Your task to perform on an android device: Go to Reddit.com Image 0: 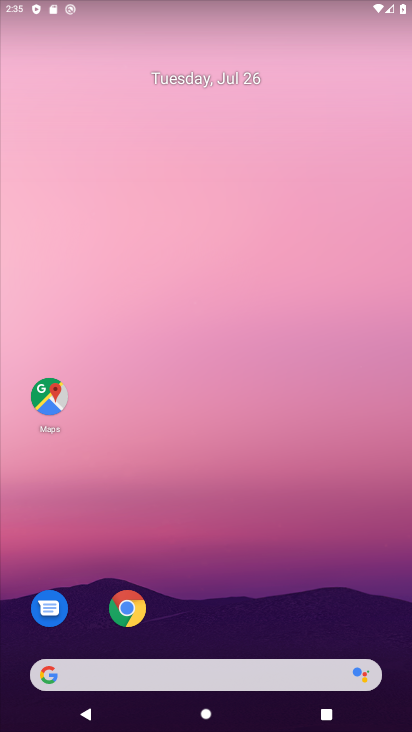
Step 0: click (137, 614)
Your task to perform on an android device: Go to Reddit.com Image 1: 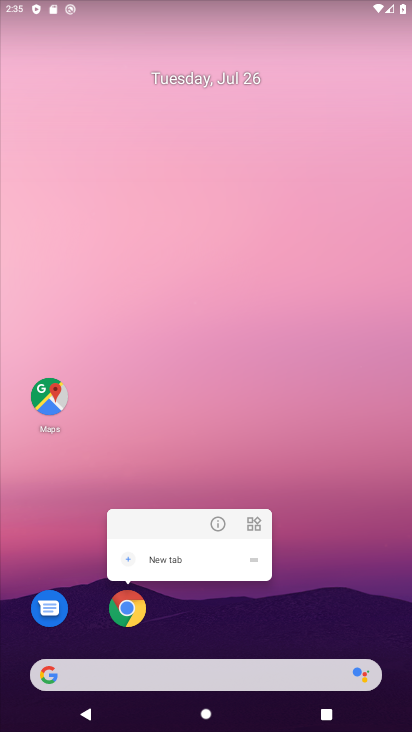
Step 1: click (130, 621)
Your task to perform on an android device: Go to Reddit.com Image 2: 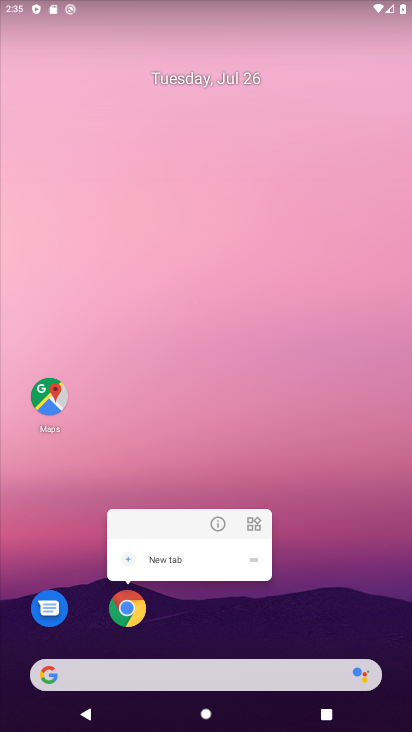
Step 2: click (130, 621)
Your task to perform on an android device: Go to Reddit.com Image 3: 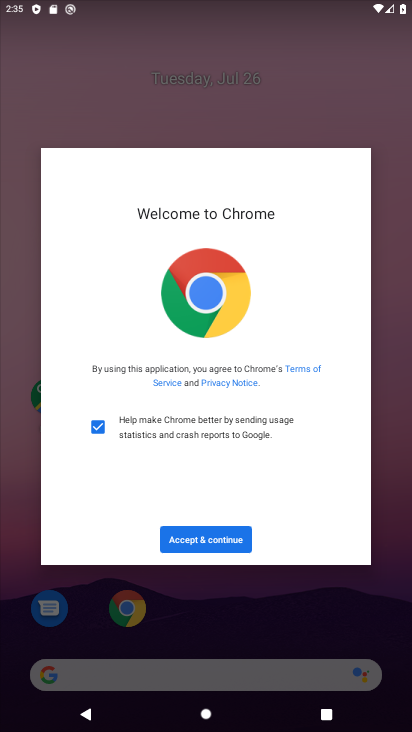
Step 3: click (242, 536)
Your task to perform on an android device: Go to Reddit.com Image 4: 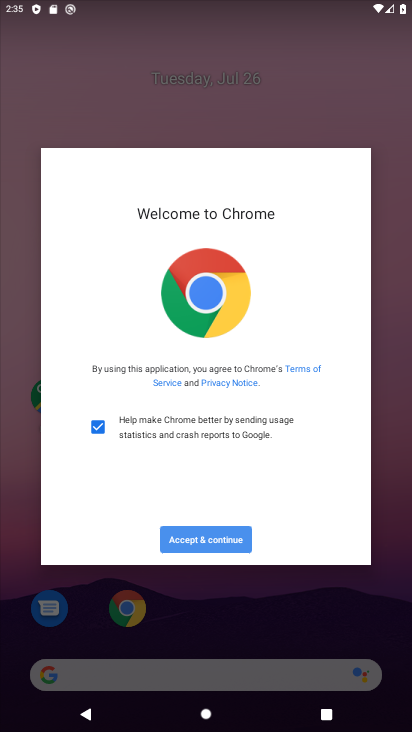
Step 4: click (242, 537)
Your task to perform on an android device: Go to Reddit.com Image 5: 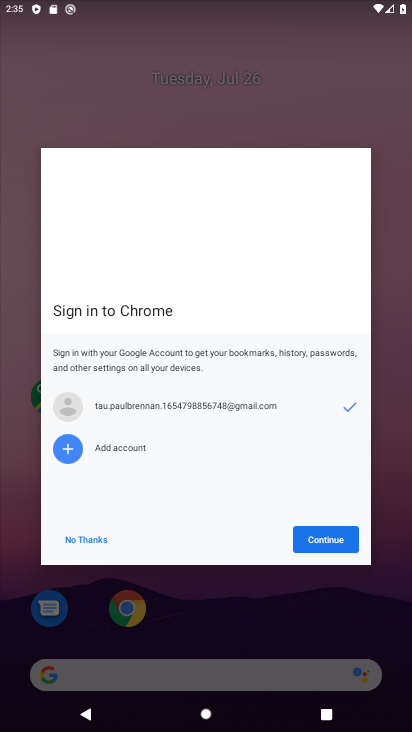
Step 5: click (242, 537)
Your task to perform on an android device: Go to Reddit.com Image 6: 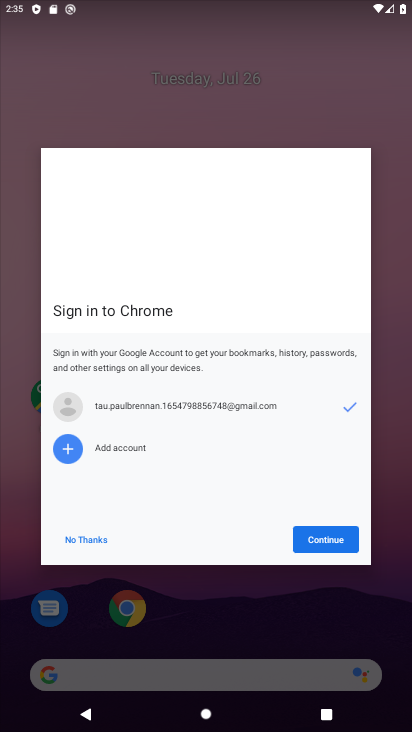
Step 6: click (315, 552)
Your task to perform on an android device: Go to Reddit.com Image 7: 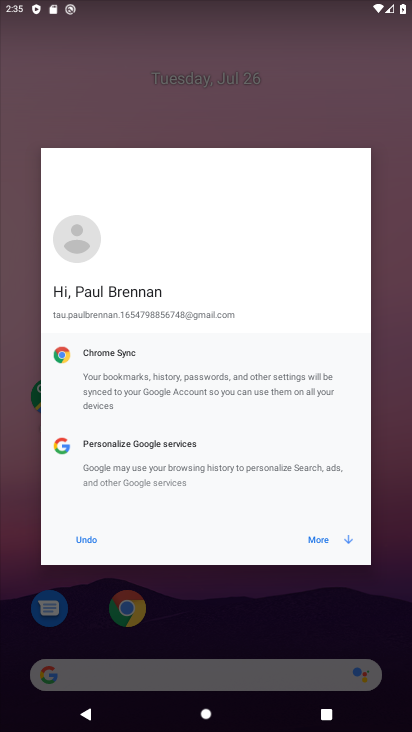
Step 7: click (317, 539)
Your task to perform on an android device: Go to Reddit.com Image 8: 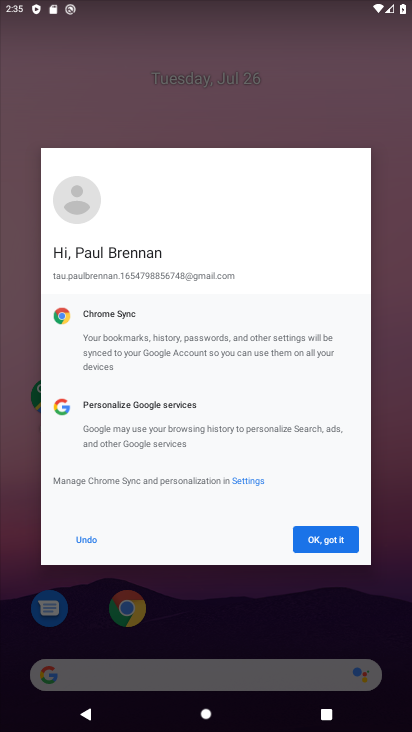
Step 8: click (316, 540)
Your task to perform on an android device: Go to Reddit.com Image 9: 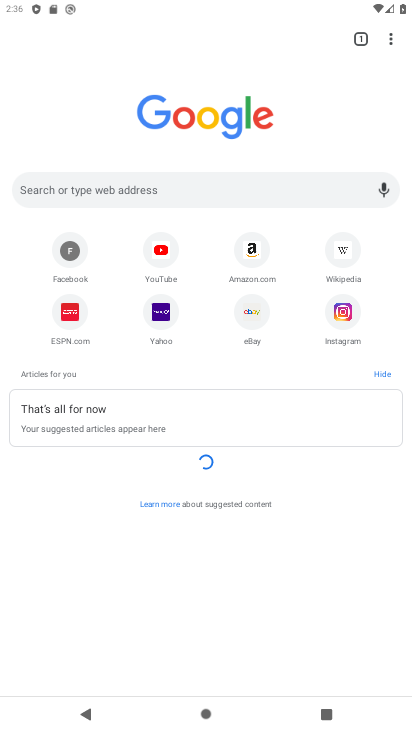
Step 9: click (209, 189)
Your task to perform on an android device: Go to Reddit.com Image 10: 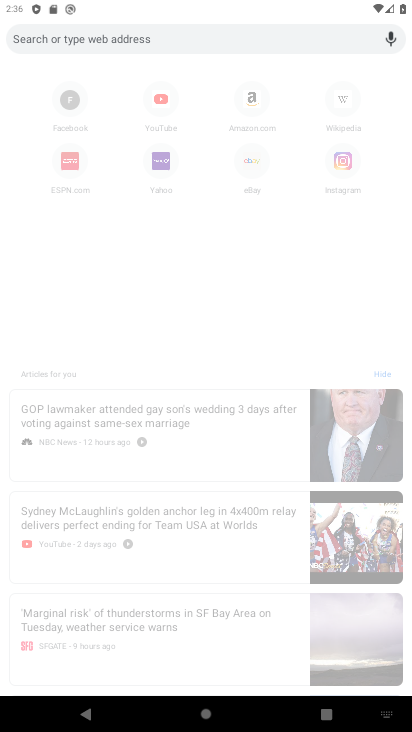
Step 10: type "reddit.com"
Your task to perform on an android device: Go to Reddit.com Image 11: 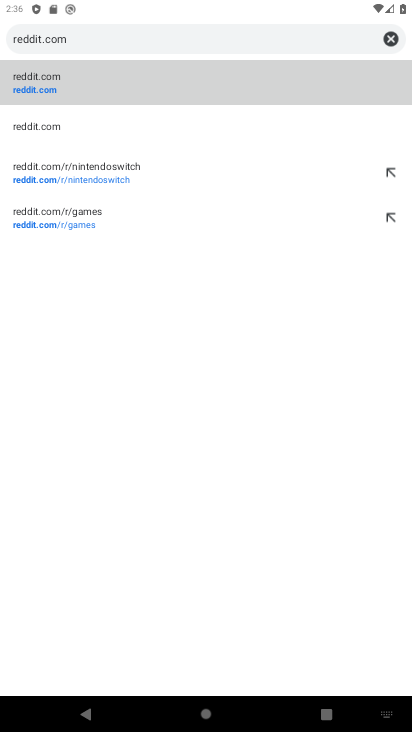
Step 11: click (86, 82)
Your task to perform on an android device: Go to Reddit.com Image 12: 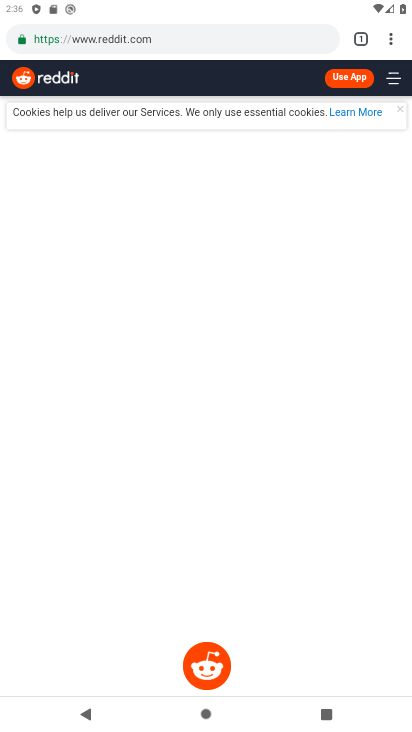
Step 12: task complete